Your task to perform on an android device: Open the phone app and click the voicemail tab. Image 0: 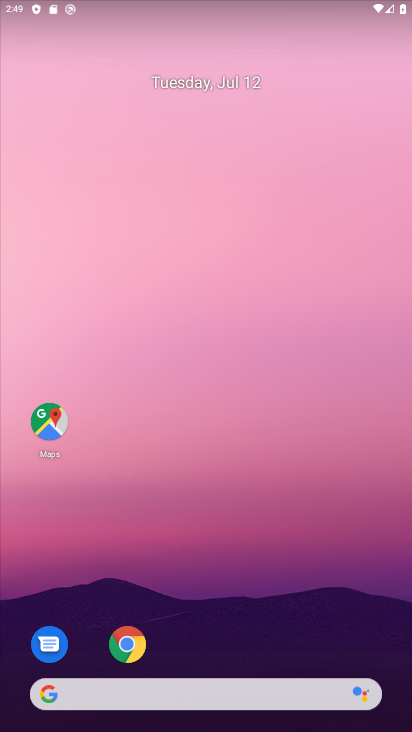
Step 0: drag from (326, 642) to (266, 150)
Your task to perform on an android device: Open the phone app and click the voicemail tab. Image 1: 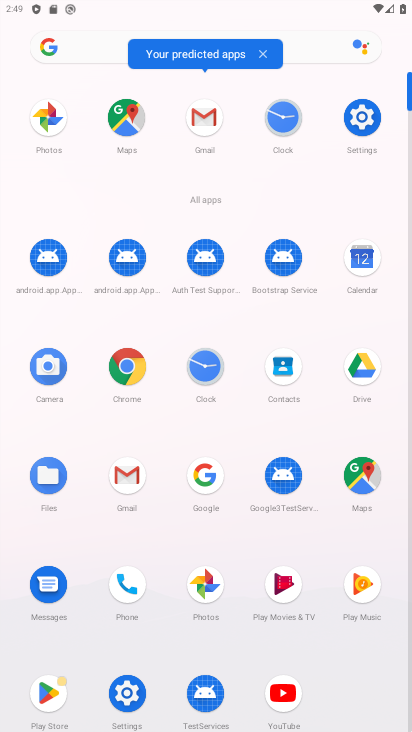
Step 1: click (127, 575)
Your task to perform on an android device: Open the phone app and click the voicemail tab. Image 2: 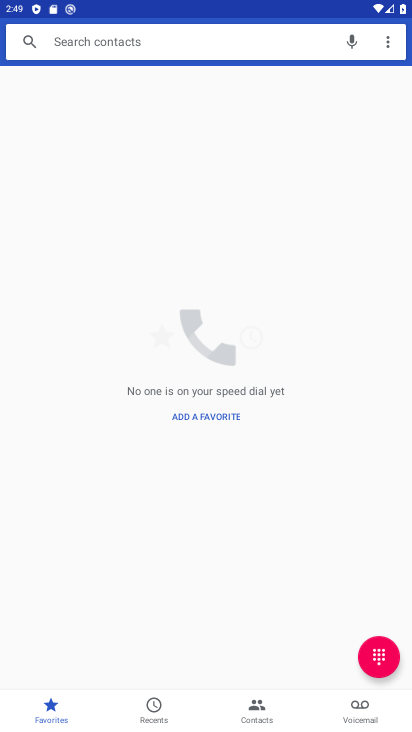
Step 2: click (351, 701)
Your task to perform on an android device: Open the phone app and click the voicemail tab. Image 3: 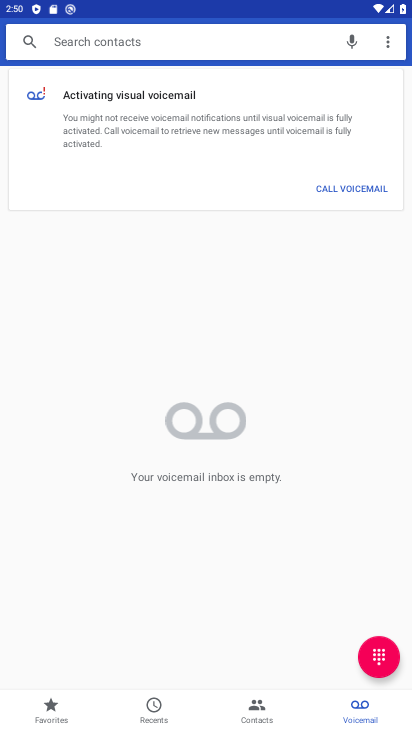
Step 3: task complete